Your task to perform on an android device: turn off translation in the chrome app Image 0: 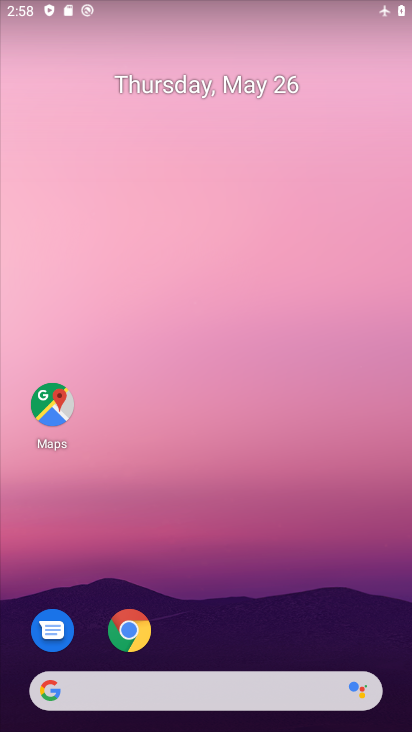
Step 0: click (129, 627)
Your task to perform on an android device: turn off translation in the chrome app Image 1: 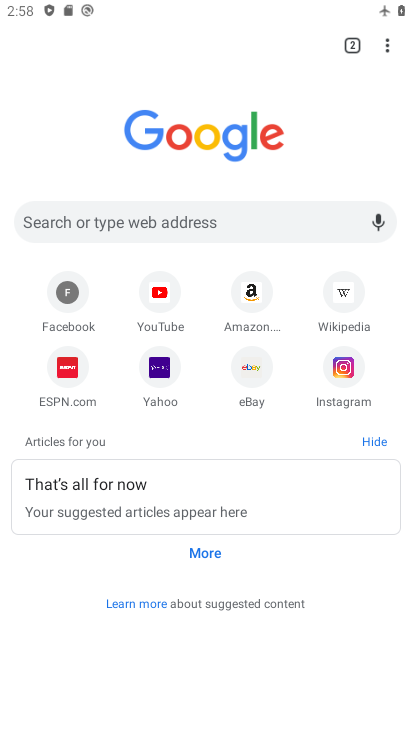
Step 1: click (387, 48)
Your task to perform on an android device: turn off translation in the chrome app Image 2: 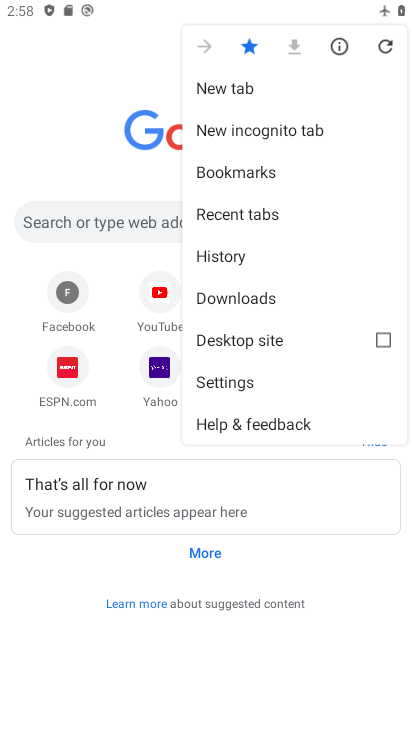
Step 2: click (240, 381)
Your task to perform on an android device: turn off translation in the chrome app Image 3: 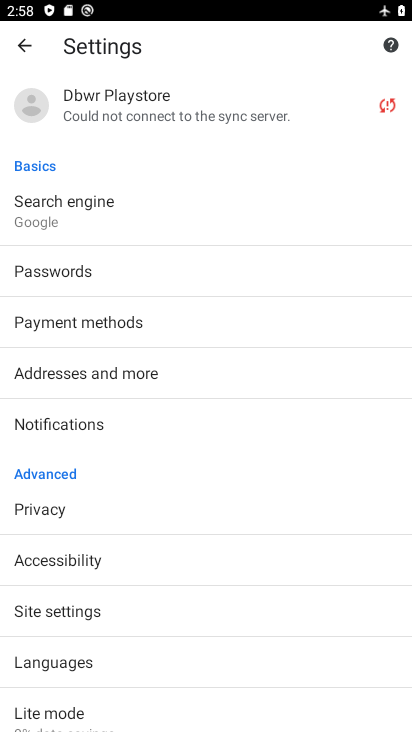
Step 3: click (76, 662)
Your task to perform on an android device: turn off translation in the chrome app Image 4: 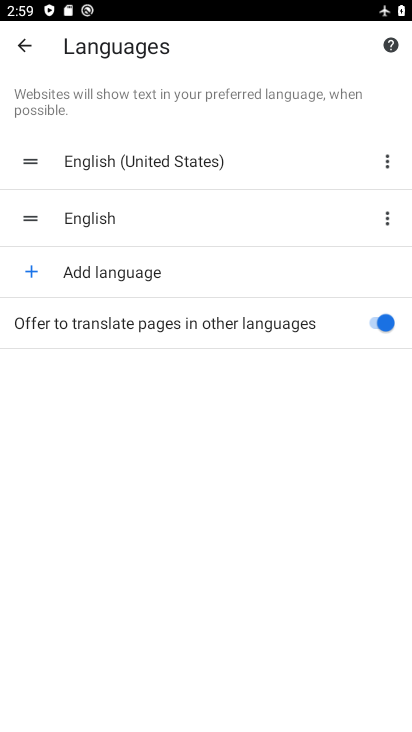
Step 4: click (370, 329)
Your task to perform on an android device: turn off translation in the chrome app Image 5: 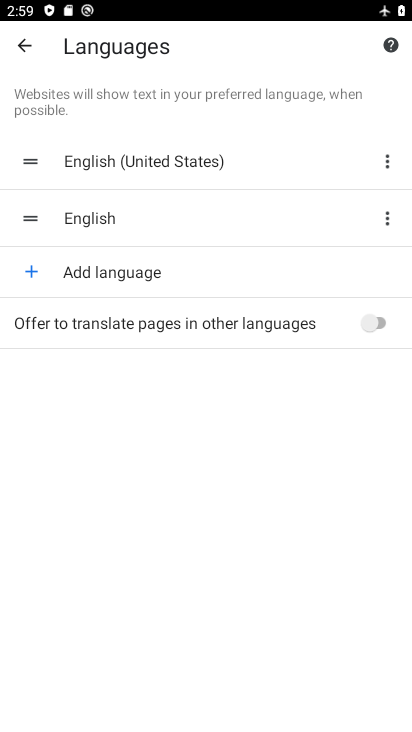
Step 5: task complete